Your task to perform on an android device: Go to privacy settings Image 0: 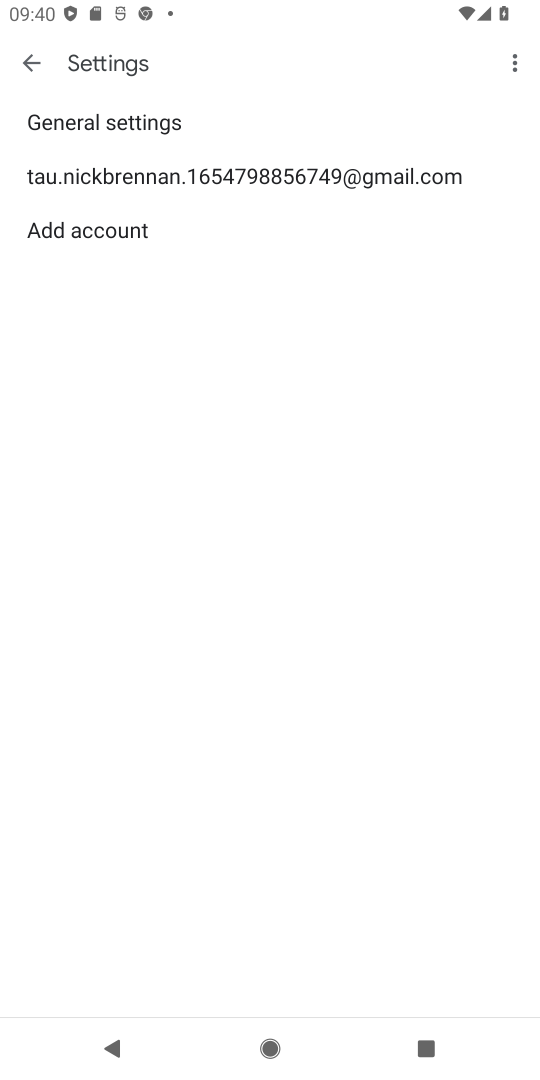
Step 0: press home button
Your task to perform on an android device: Go to privacy settings Image 1: 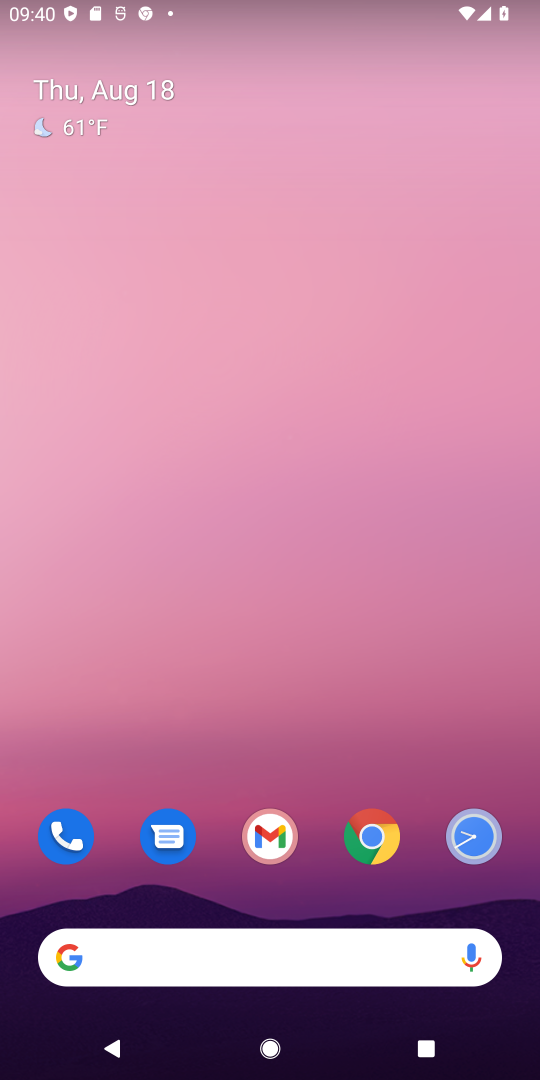
Step 1: drag from (423, 801) to (531, 70)
Your task to perform on an android device: Go to privacy settings Image 2: 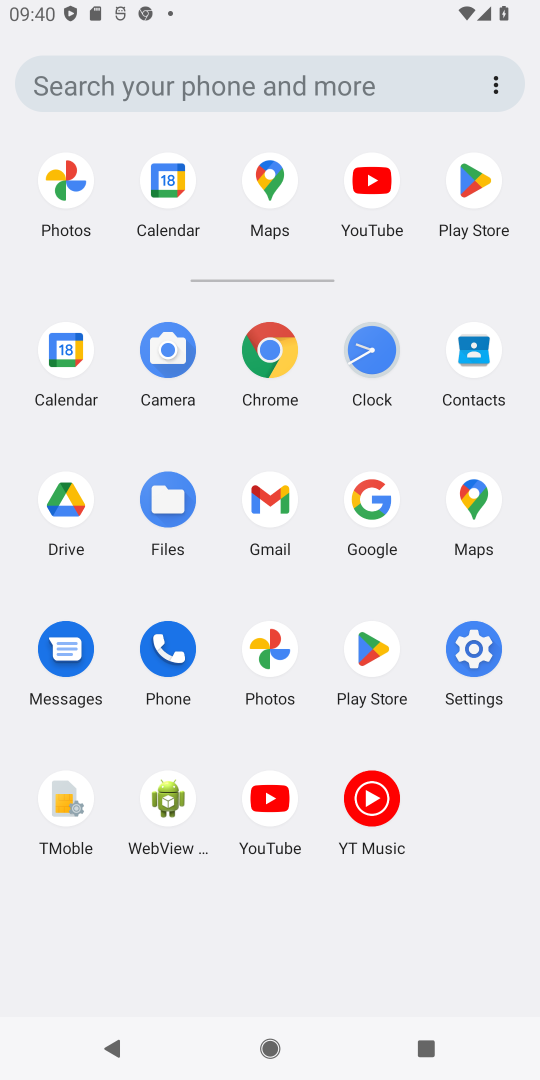
Step 2: click (457, 655)
Your task to perform on an android device: Go to privacy settings Image 3: 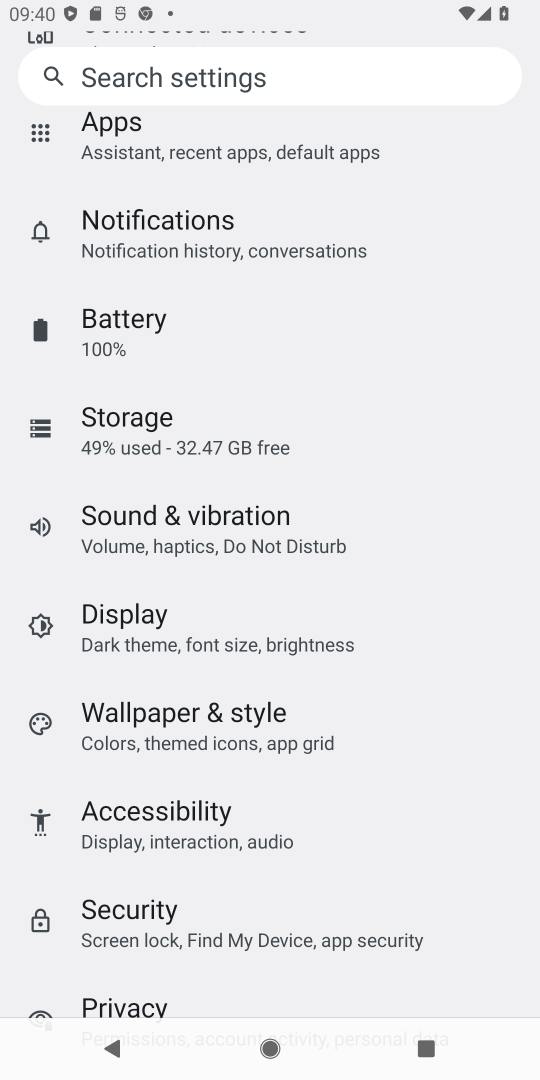
Step 3: drag from (108, 897) to (207, 459)
Your task to perform on an android device: Go to privacy settings Image 4: 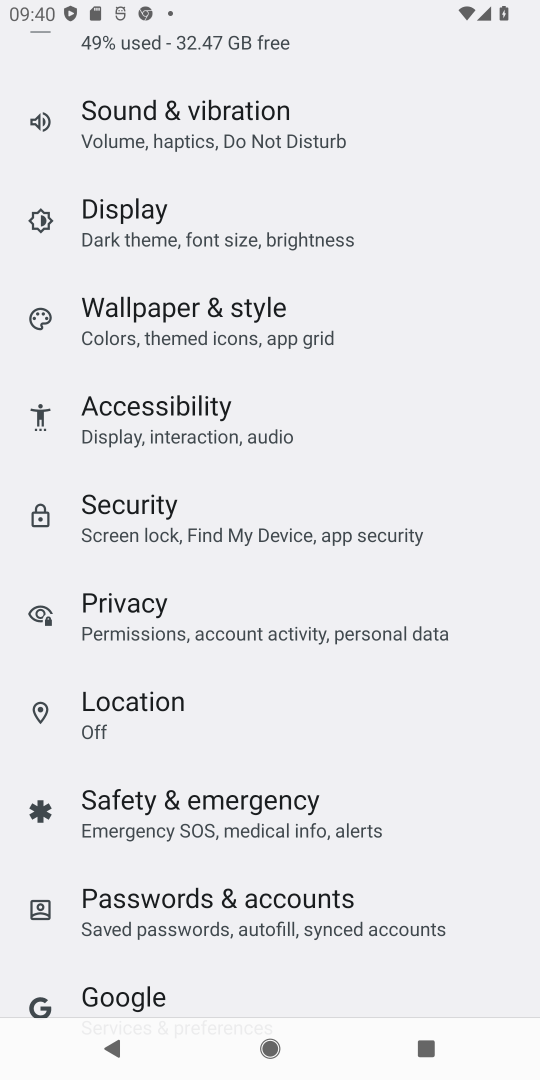
Step 4: click (159, 634)
Your task to perform on an android device: Go to privacy settings Image 5: 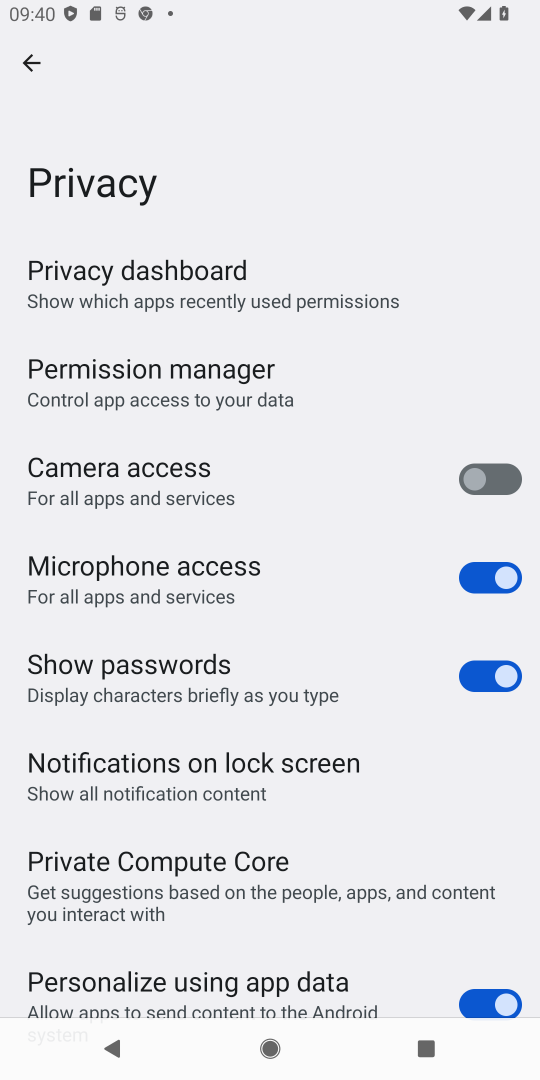
Step 5: task complete